Your task to perform on an android device: Open calendar and show me the second week of next month Image 0: 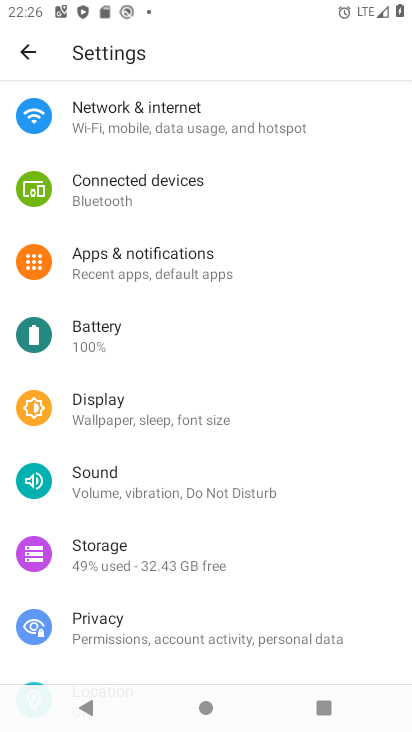
Step 0: press home button
Your task to perform on an android device: Open calendar and show me the second week of next month Image 1: 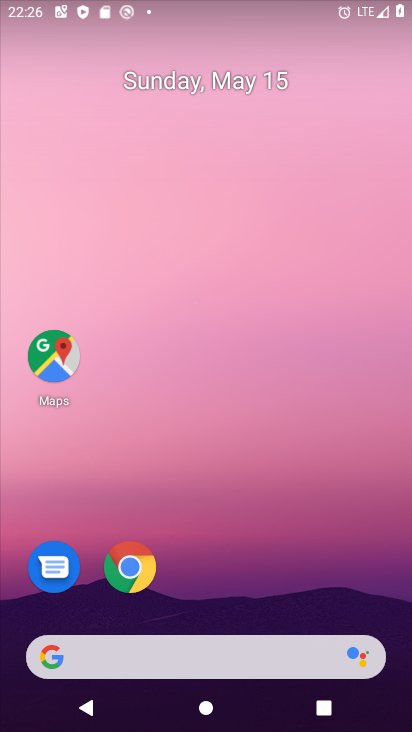
Step 1: drag from (168, 649) to (186, 85)
Your task to perform on an android device: Open calendar and show me the second week of next month Image 2: 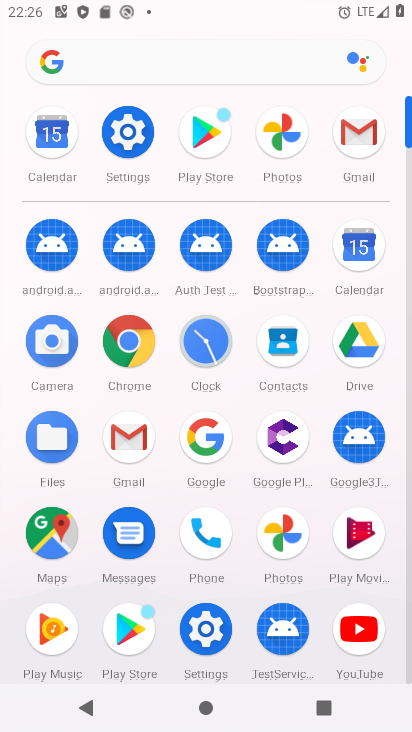
Step 2: click (347, 263)
Your task to perform on an android device: Open calendar and show me the second week of next month Image 3: 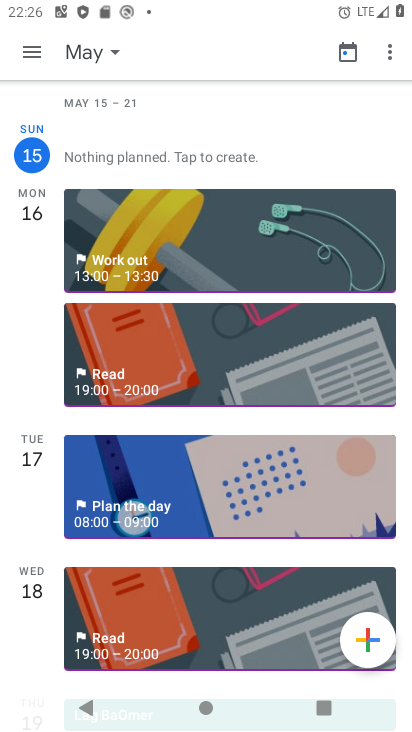
Step 3: click (73, 51)
Your task to perform on an android device: Open calendar and show me the second week of next month Image 4: 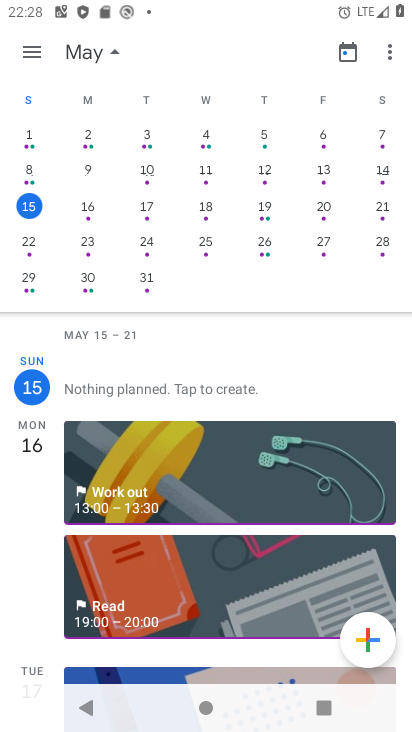
Step 4: task complete